Your task to perform on an android device: turn off notifications settings in the gmail app Image 0: 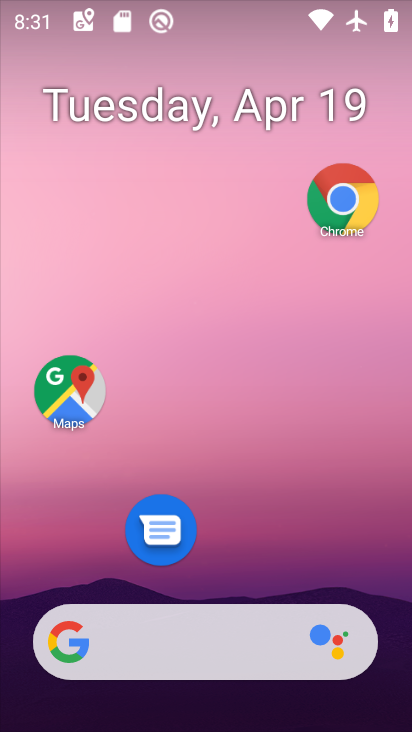
Step 0: drag from (222, 535) to (153, 16)
Your task to perform on an android device: turn off notifications settings in the gmail app Image 1: 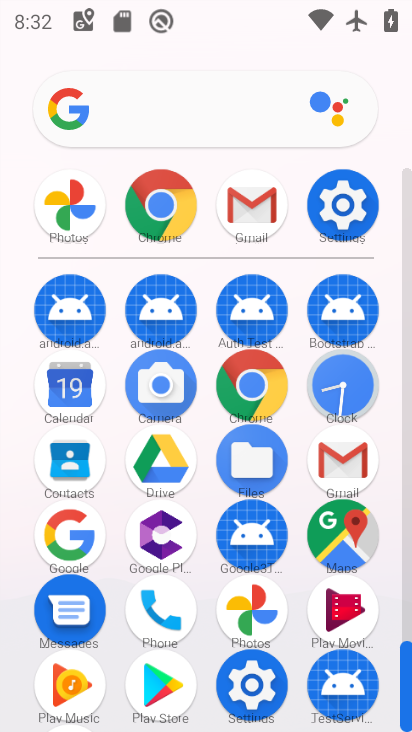
Step 1: drag from (211, 571) to (236, 301)
Your task to perform on an android device: turn off notifications settings in the gmail app Image 2: 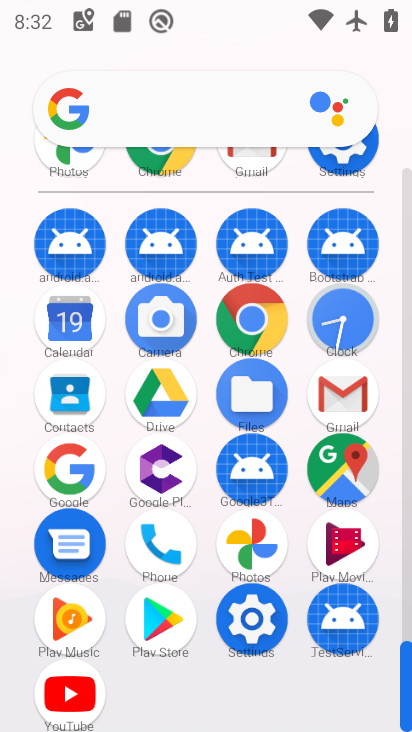
Step 2: click (347, 402)
Your task to perform on an android device: turn off notifications settings in the gmail app Image 3: 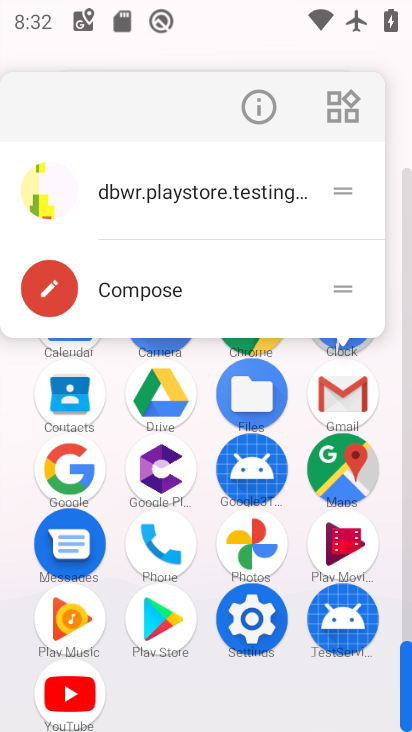
Step 3: click (257, 92)
Your task to perform on an android device: turn off notifications settings in the gmail app Image 4: 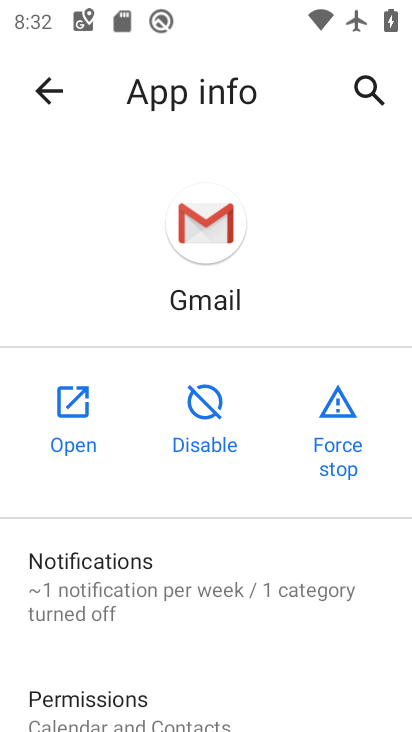
Step 4: click (86, 408)
Your task to perform on an android device: turn off notifications settings in the gmail app Image 5: 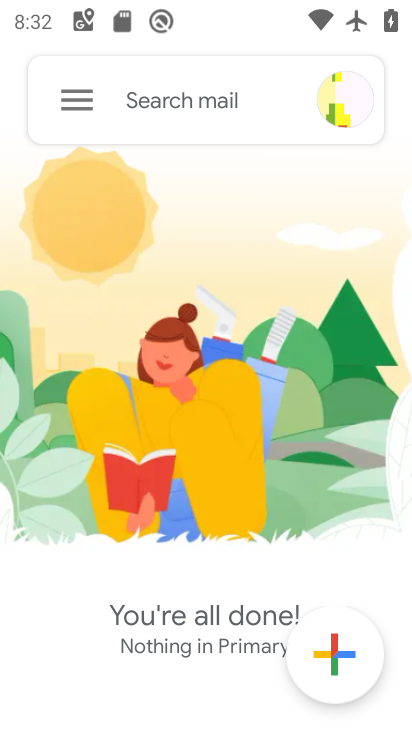
Step 5: click (74, 106)
Your task to perform on an android device: turn off notifications settings in the gmail app Image 6: 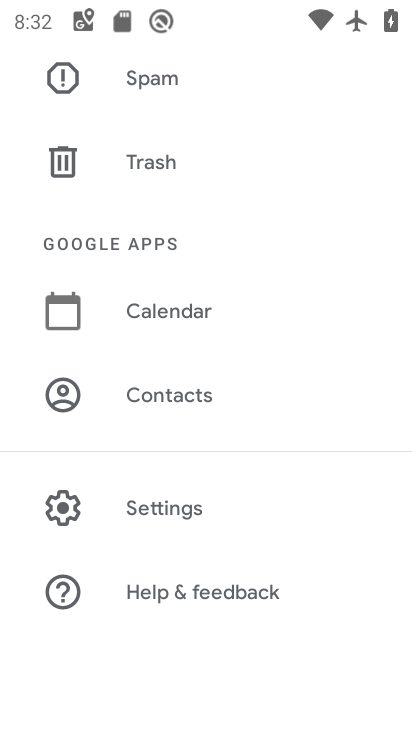
Step 6: click (156, 512)
Your task to perform on an android device: turn off notifications settings in the gmail app Image 7: 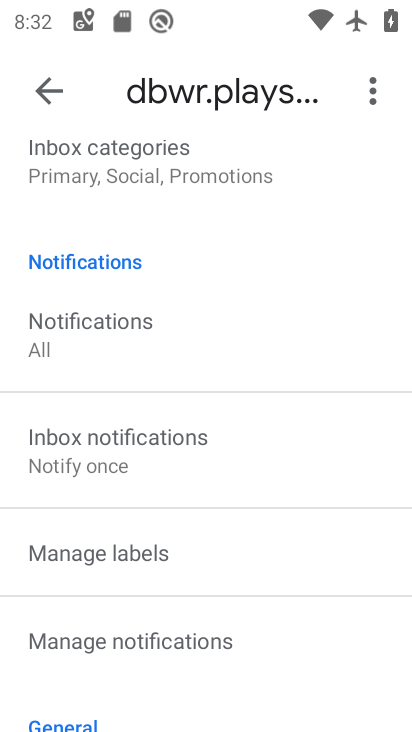
Step 7: drag from (275, 576) to (274, 301)
Your task to perform on an android device: turn off notifications settings in the gmail app Image 8: 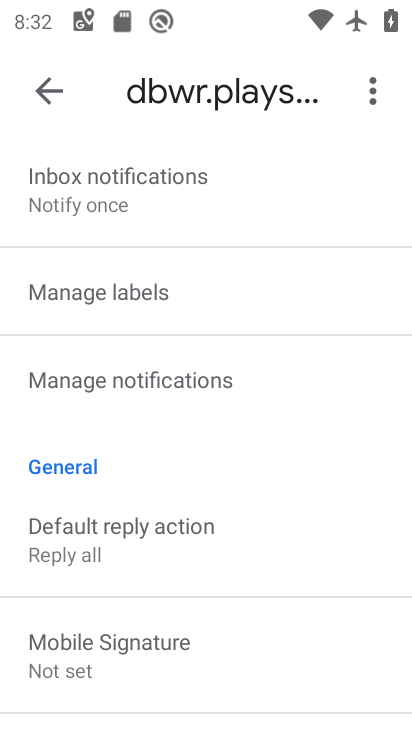
Step 8: click (147, 375)
Your task to perform on an android device: turn off notifications settings in the gmail app Image 9: 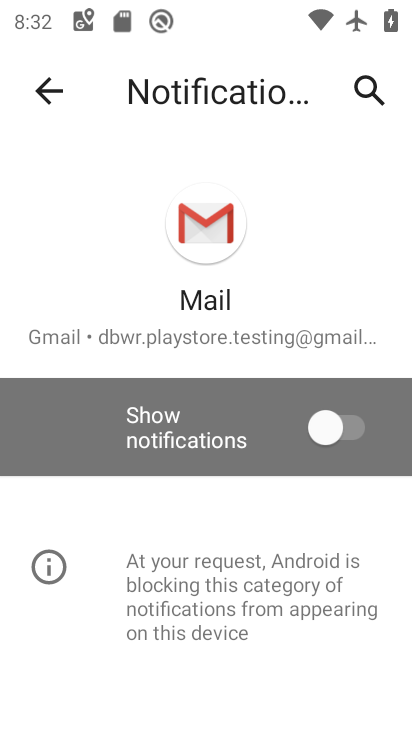
Step 9: task complete